Your task to perform on an android device: check out phone information Image 0: 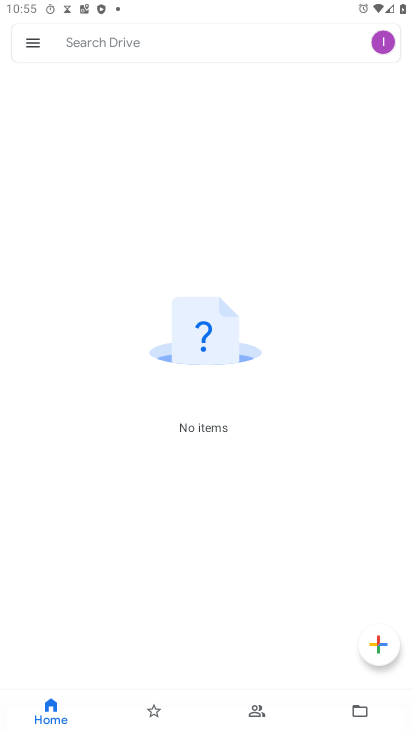
Step 0: press back button
Your task to perform on an android device: check out phone information Image 1: 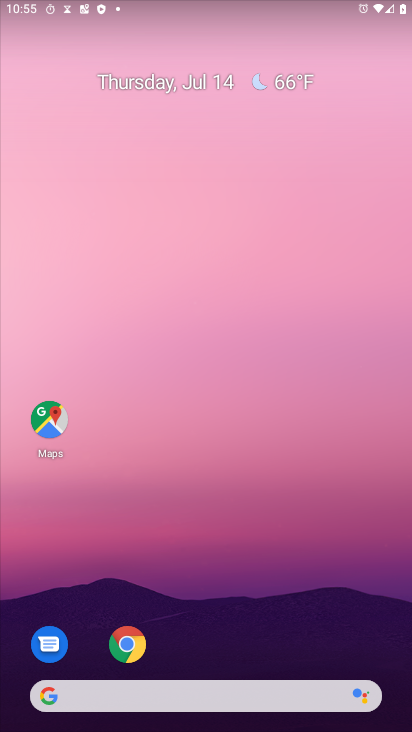
Step 1: drag from (202, 489) to (159, 186)
Your task to perform on an android device: check out phone information Image 2: 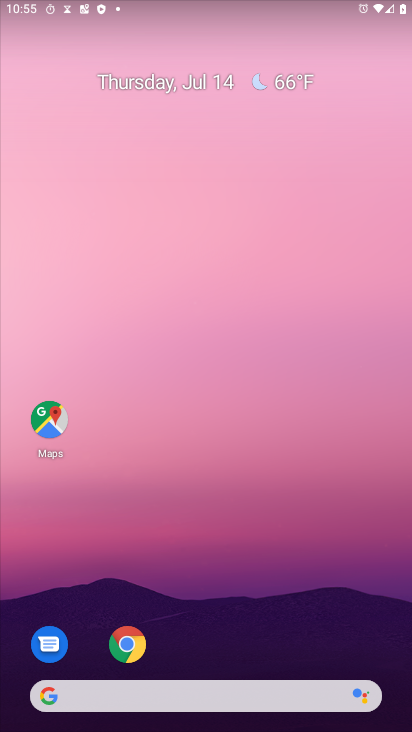
Step 2: drag from (230, 702) to (196, 141)
Your task to perform on an android device: check out phone information Image 3: 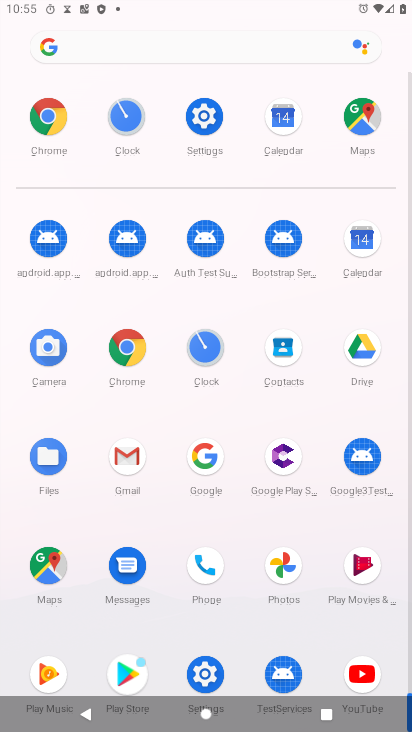
Step 3: click (205, 118)
Your task to perform on an android device: check out phone information Image 4: 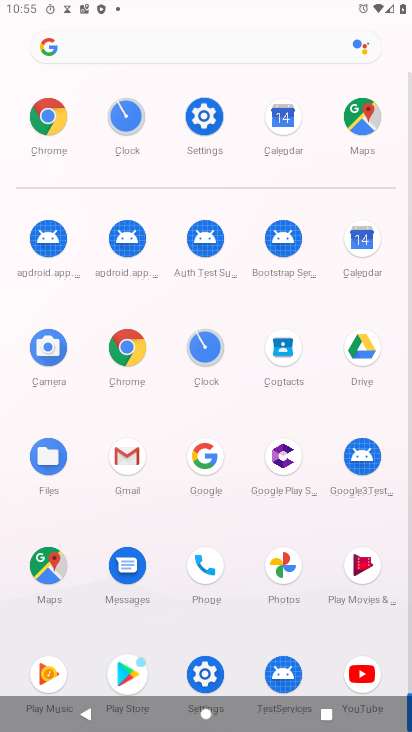
Step 4: click (205, 116)
Your task to perform on an android device: check out phone information Image 5: 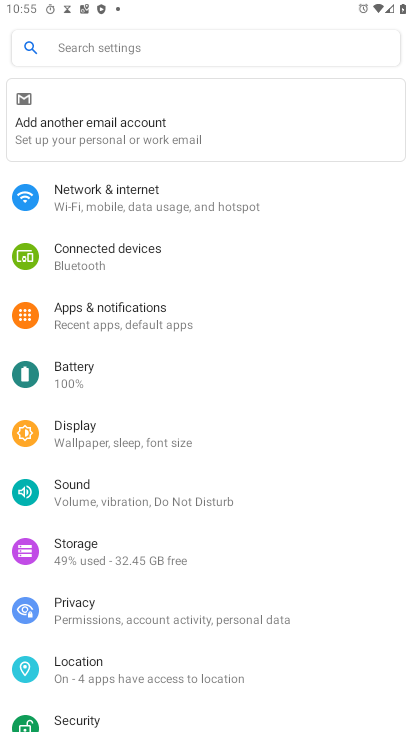
Step 5: drag from (141, 640) to (128, 179)
Your task to perform on an android device: check out phone information Image 6: 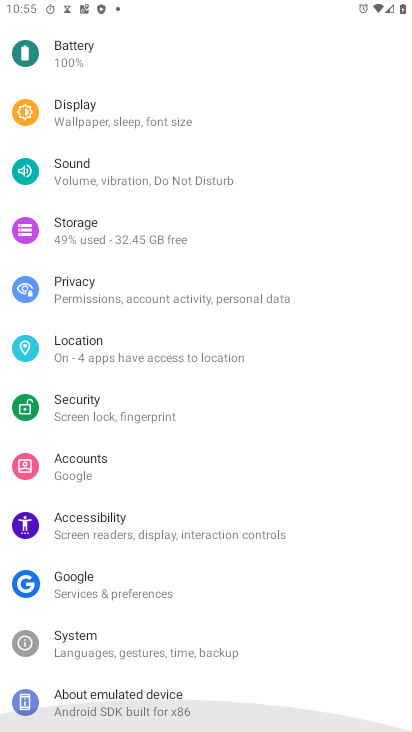
Step 6: drag from (204, 312) to (190, 203)
Your task to perform on an android device: check out phone information Image 7: 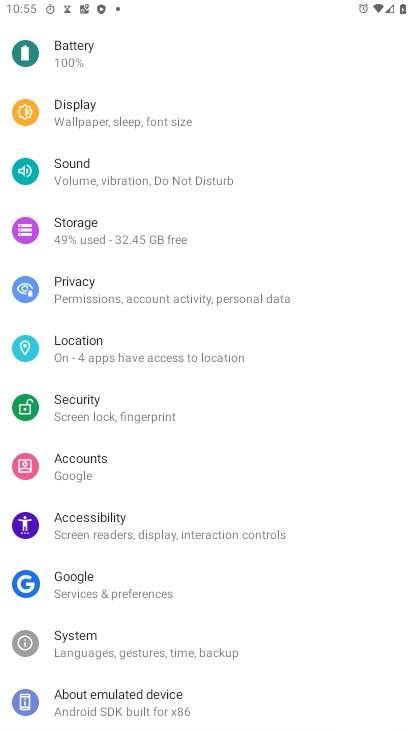
Step 7: drag from (195, 450) to (208, 260)
Your task to perform on an android device: check out phone information Image 8: 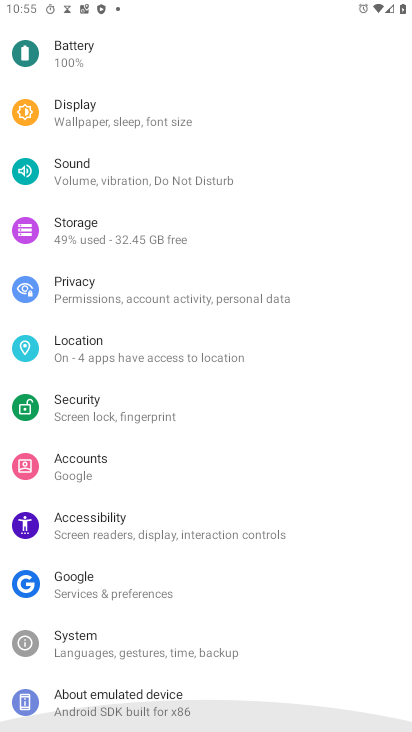
Step 8: drag from (198, 510) to (186, 211)
Your task to perform on an android device: check out phone information Image 9: 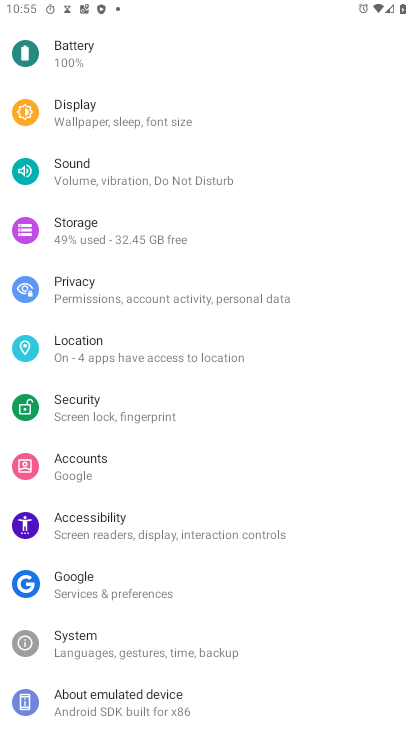
Step 9: click (108, 705)
Your task to perform on an android device: check out phone information Image 10: 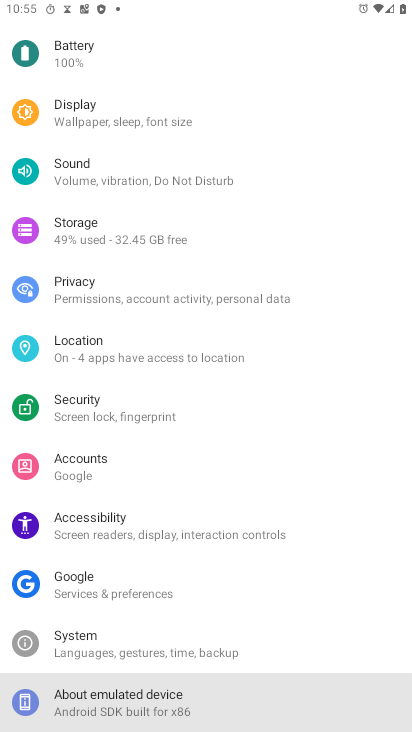
Step 10: click (108, 705)
Your task to perform on an android device: check out phone information Image 11: 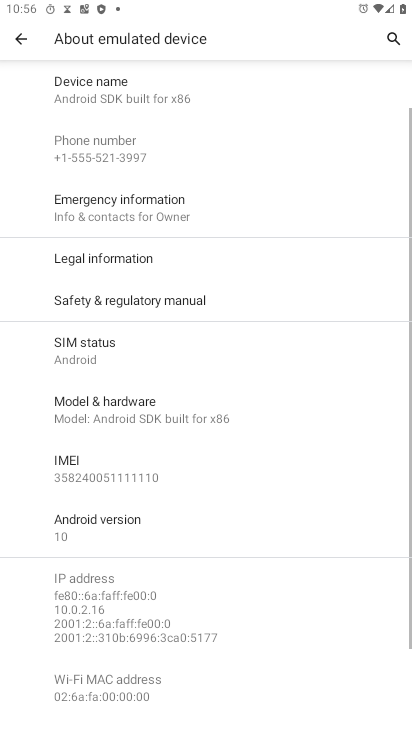
Step 11: task complete